Your task to perform on an android device: turn off smart reply in the gmail app Image 0: 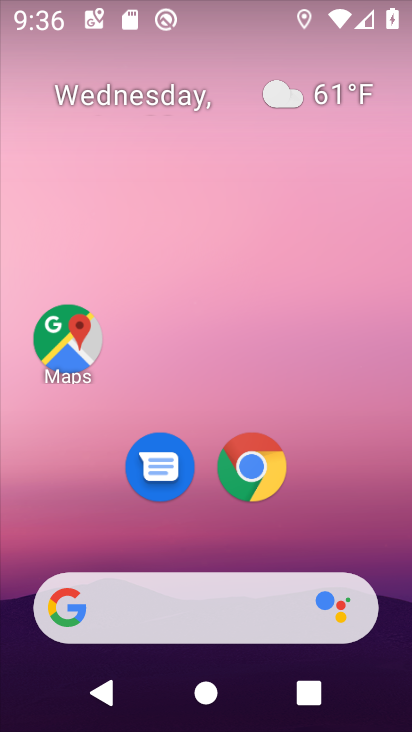
Step 0: drag from (407, 409) to (411, 133)
Your task to perform on an android device: turn off smart reply in the gmail app Image 1: 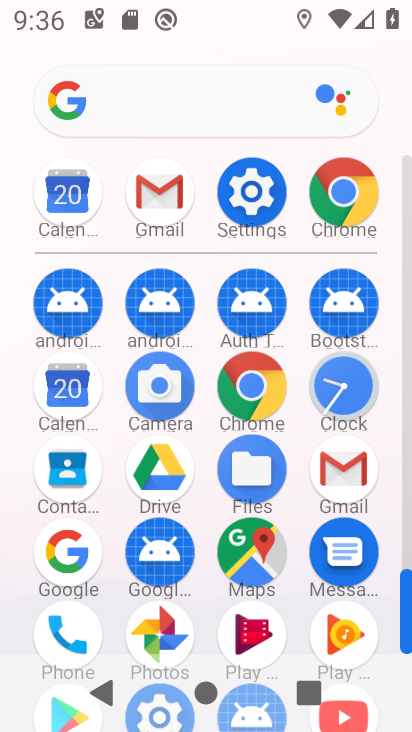
Step 1: click (168, 186)
Your task to perform on an android device: turn off smart reply in the gmail app Image 2: 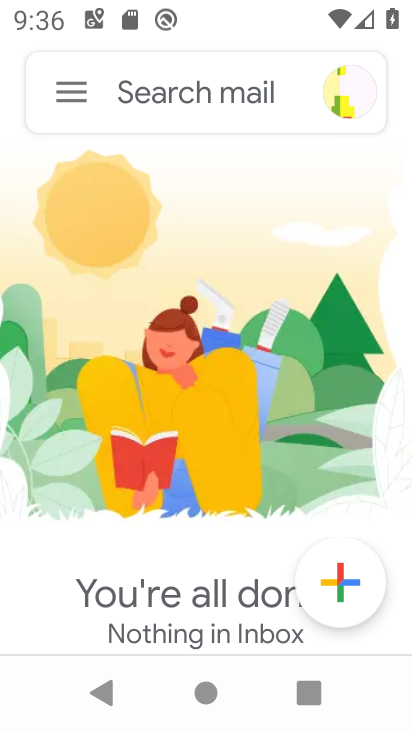
Step 2: click (75, 100)
Your task to perform on an android device: turn off smart reply in the gmail app Image 3: 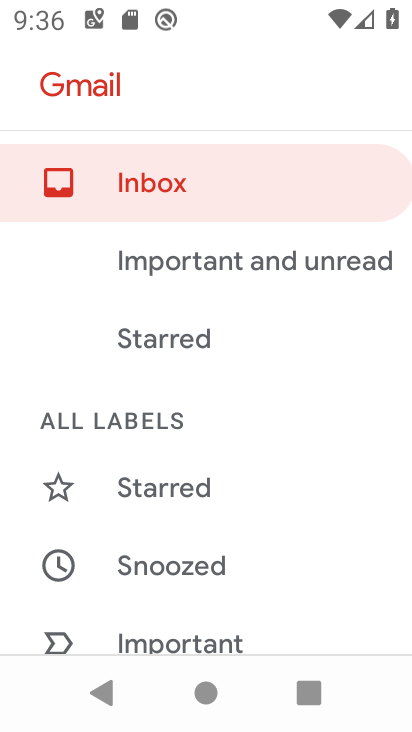
Step 3: drag from (304, 639) to (325, 257)
Your task to perform on an android device: turn off smart reply in the gmail app Image 4: 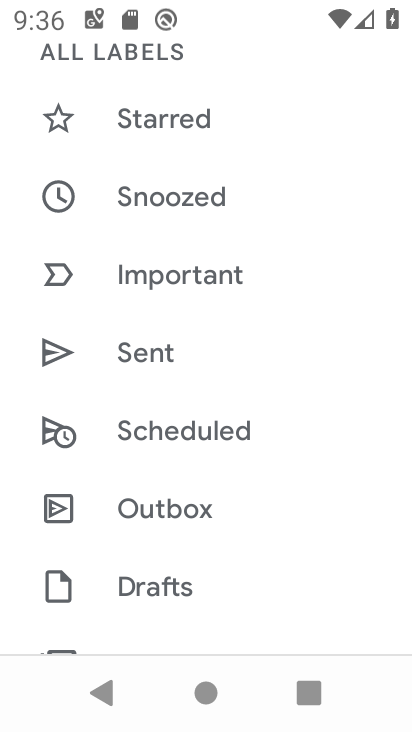
Step 4: drag from (234, 568) to (290, 152)
Your task to perform on an android device: turn off smart reply in the gmail app Image 5: 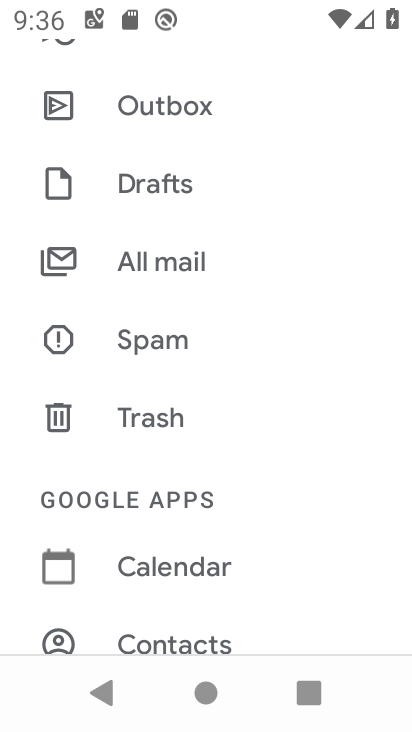
Step 5: drag from (245, 595) to (338, 163)
Your task to perform on an android device: turn off smart reply in the gmail app Image 6: 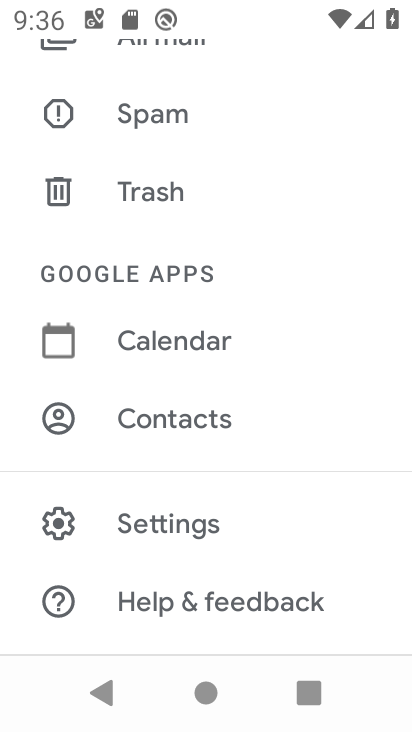
Step 6: click (186, 530)
Your task to perform on an android device: turn off smart reply in the gmail app Image 7: 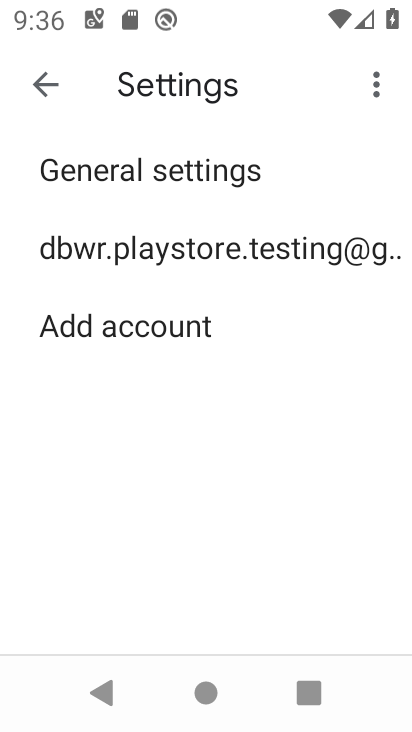
Step 7: click (193, 250)
Your task to perform on an android device: turn off smart reply in the gmail app Image 8: 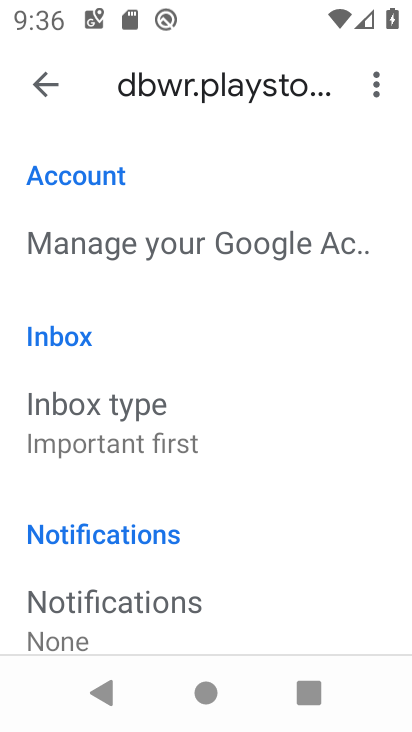
Step 8: task complete